Your task to perform on an android device: toggle improve location accuracy Image 0: 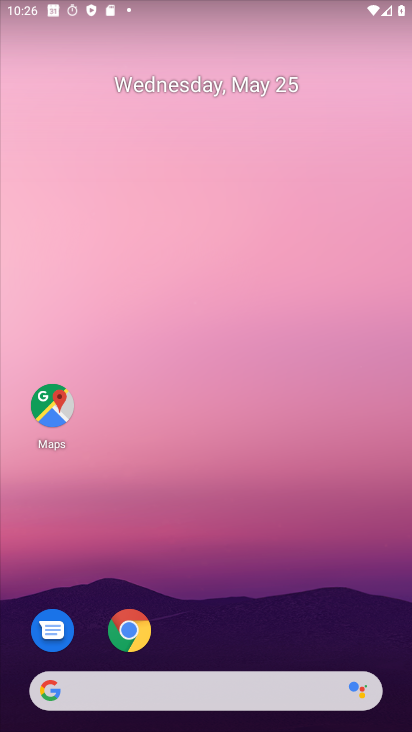
Step 0: drag from (381, 644) to (387, 320)
Your task to perform on an android device: toggle improve location accuracy Image 1: 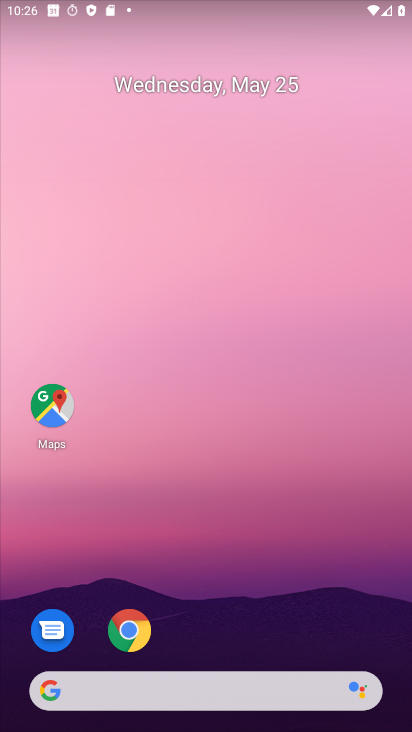
Step 1: drag from (396, 702) to (373, 269)
Your task to perform on an android device: toggle improve location accuracy Image 2: 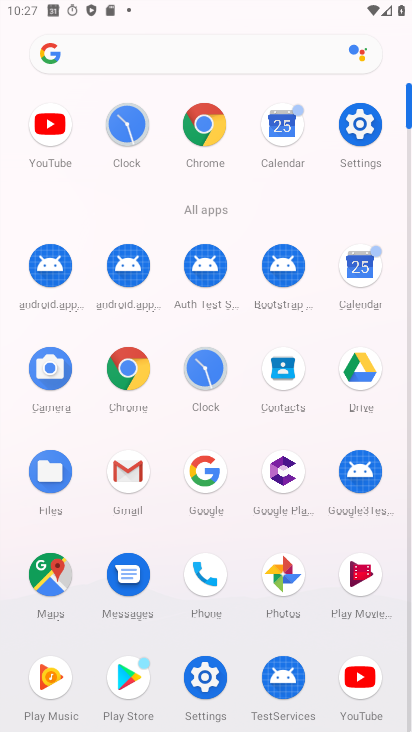
Step 2: click (352, 126)
Your task to perform on an android device: toggle improve location accuracy Image 3: 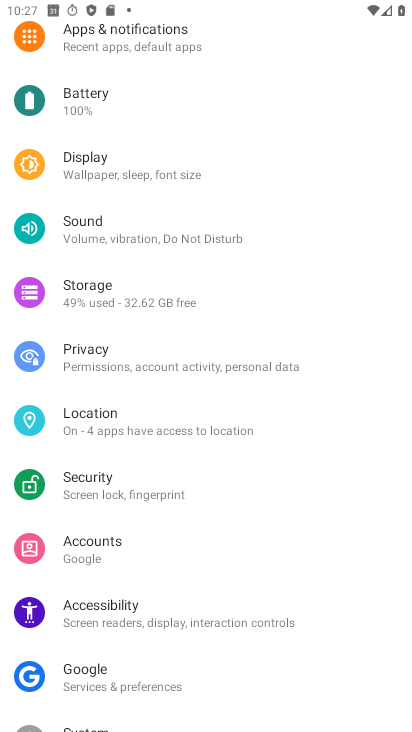
Step 3: click (100, 419)
Your task to perform on an android device: toggle improve location accuracy Image 4: 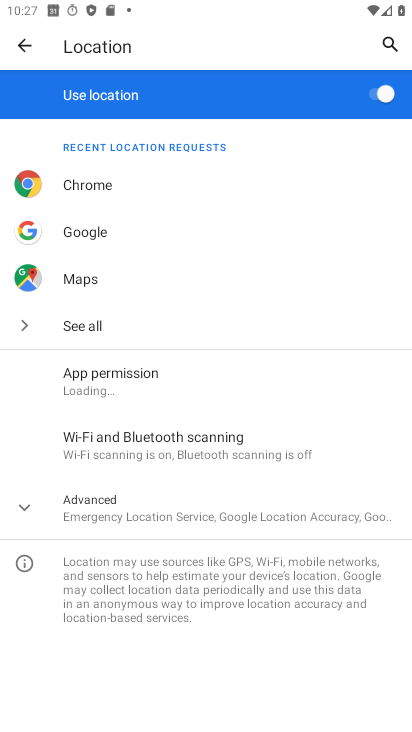
Step 4: click (28, 503)
Your task to perform on an android device: toggle improve location accuracy Image 5: 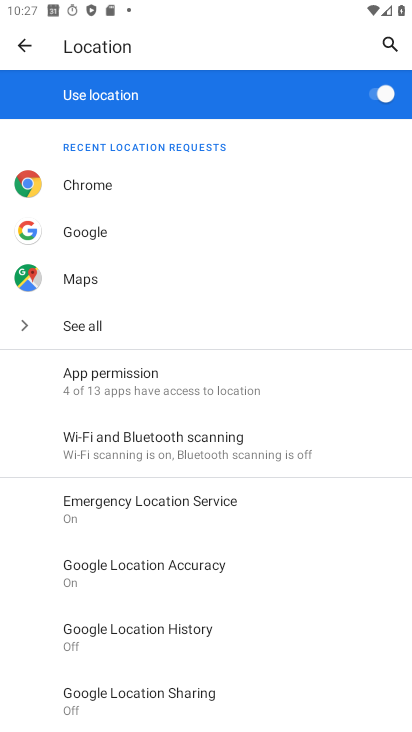
Step 5: click (324, 319)
Your task to perform on an android device: toggle improve location accuracy Image 6: 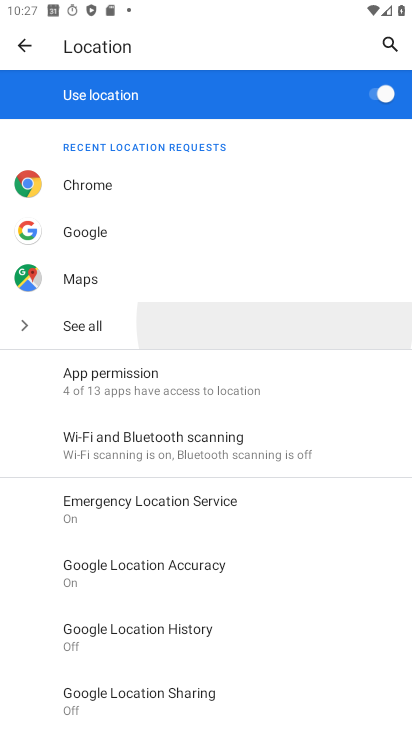
Step 6: drag from (350, 400) to (344, 346)
Your task to perform on an android device: toggle improve location accuracy Image 7: 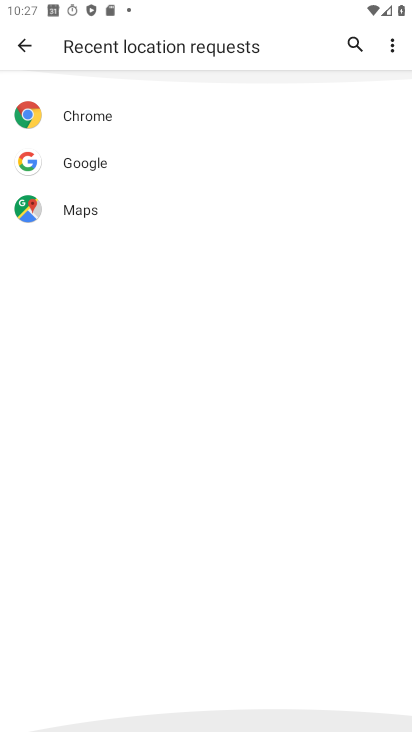
Step 7: click (166, 570)
Your task to perform on an android device: toggle improve location accuracy Image 8: 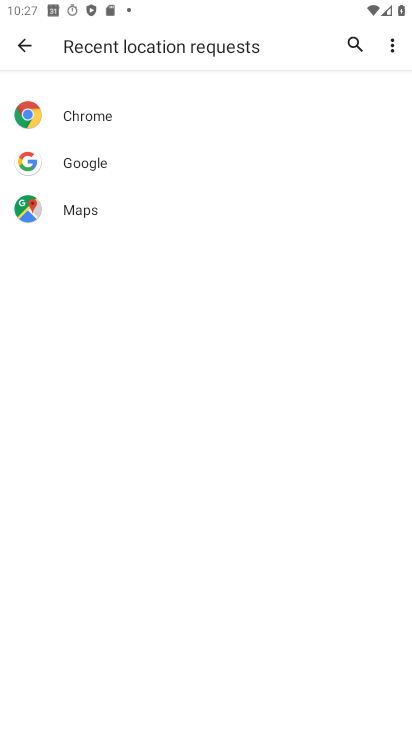
Step 8: click (22, 40)
Your task to perform on an android device: toggle improve location accuracy Image 9: 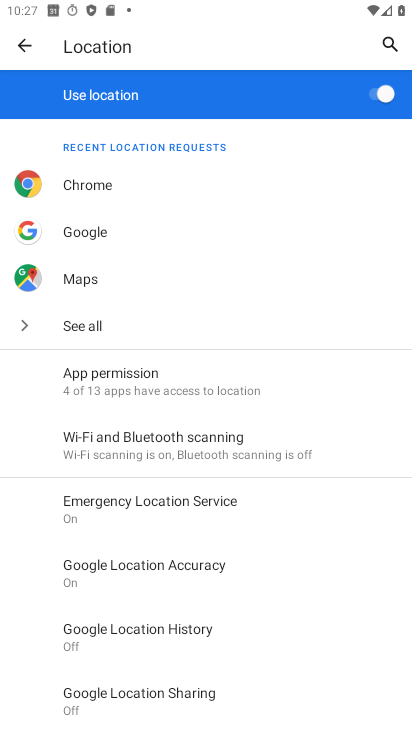
Step 9: click (106, 563)
Your task to perform on an android device: toggle improve location accuracy Image 10: 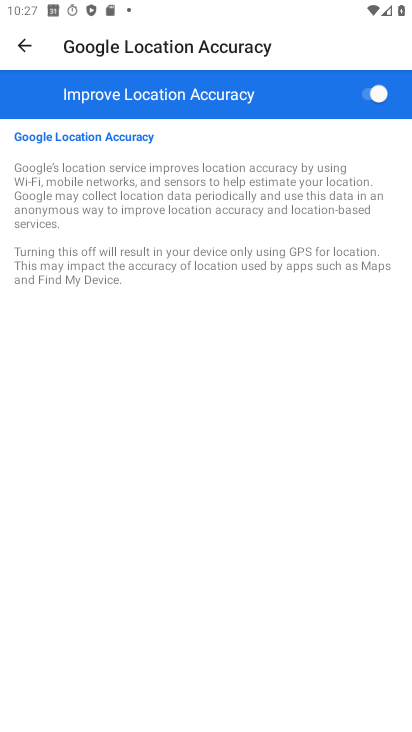
Step 10: click (370, 91)
Your task to perform on an android device: toggle improve location accuracy Image 11: 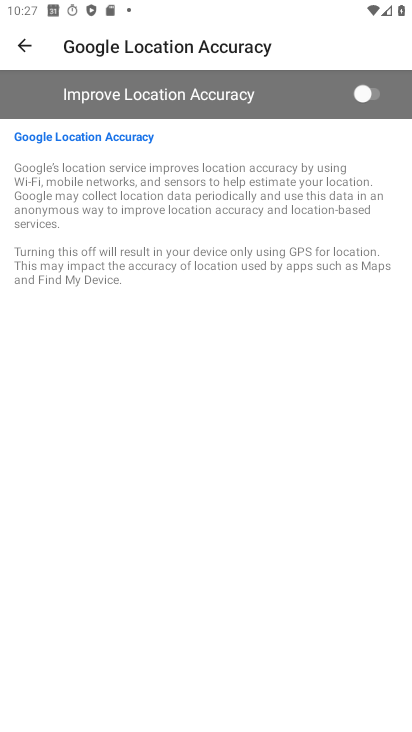
Step 11: task complete